Your task to perform on an android device: Show me popular games on the Play Store Image 0: 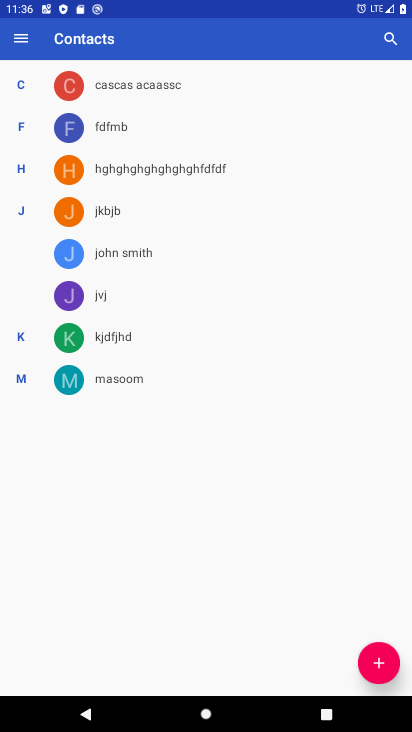
Step 0: press home button
Your task to perform on an android device: Show me popular games on the Play Store Image 1: 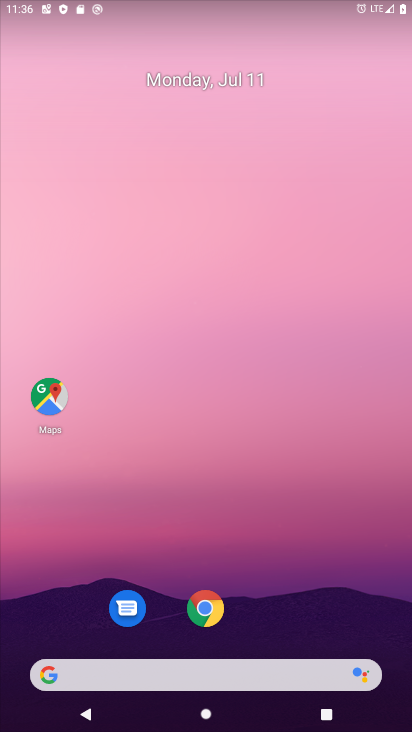
Step 1: drag from (27, 698) to (110, 0)
Your task to perform on an android device: Show me popular games on the Play Store Image 2: 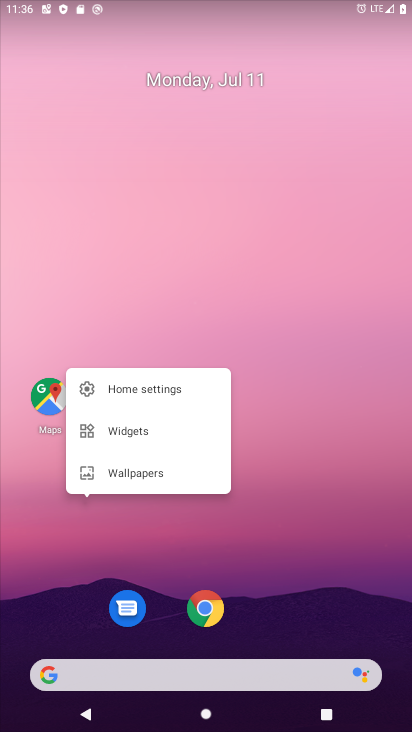
Step 2: drag from (35, 704) to (152, 165)
Your task to perform on an android device: Show me popular games on the Play Store Image 3: 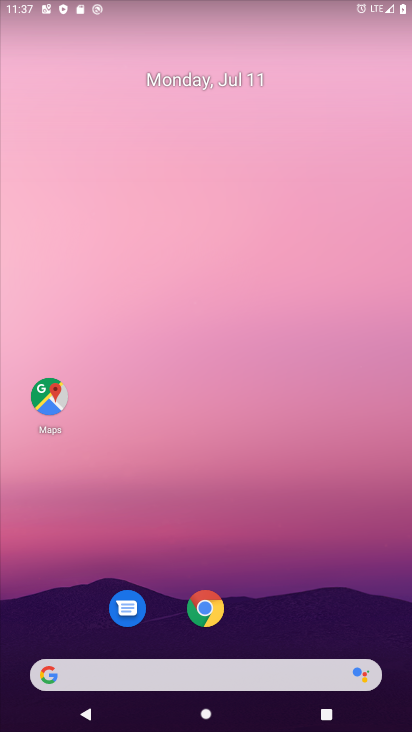
Step 3: drag from (45, 713) to (144, 140)
Your task to perform on an android device: Show me popular games on the Play Store Image 4: 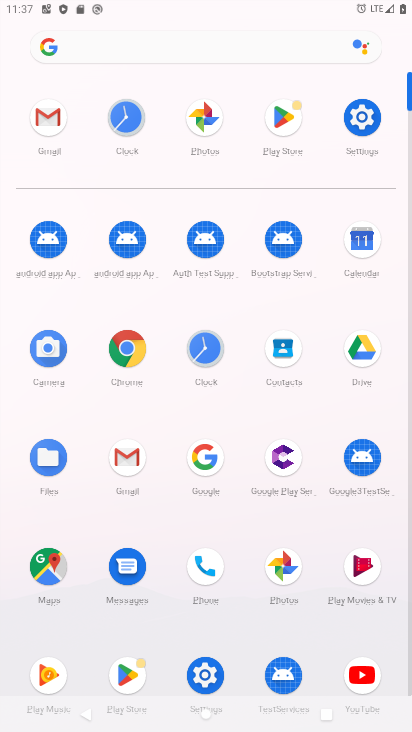
Step 4: click (120, 674)
Your task to perform on an android device: Show me popular games on the Play Store Image 5: 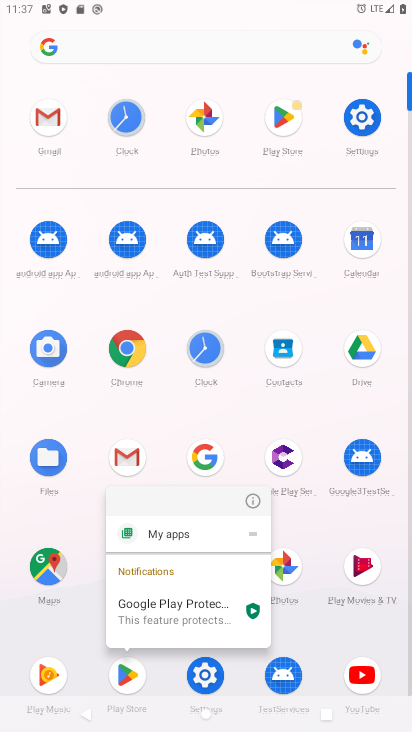
Step 5: click (124, 675)
Your task to perform on an android device: Show me popular games on the Play Store Image 6: 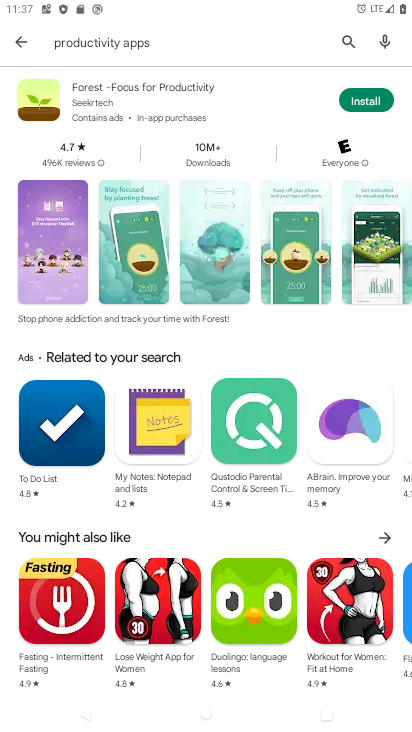
Step 6: click (21, 48)
Your task to perform on an android device: Show me popular games on the Play Store Image 7: 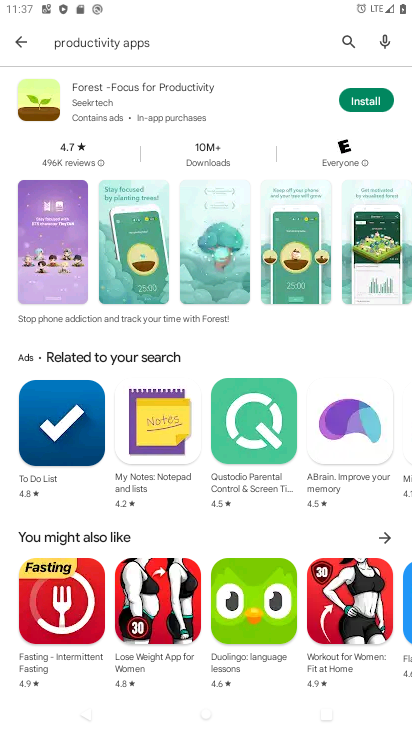
Step 7: click (23, 43)
Your task to perform on an android device: Show me popular games on the Play Store Image 8: 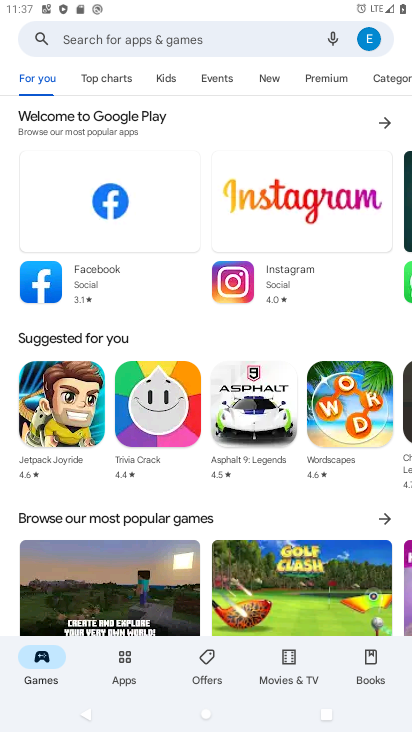
Step 8: click (146, 30)
Your task to perform on an android device: Show me popular games on the Play Store Image 9: 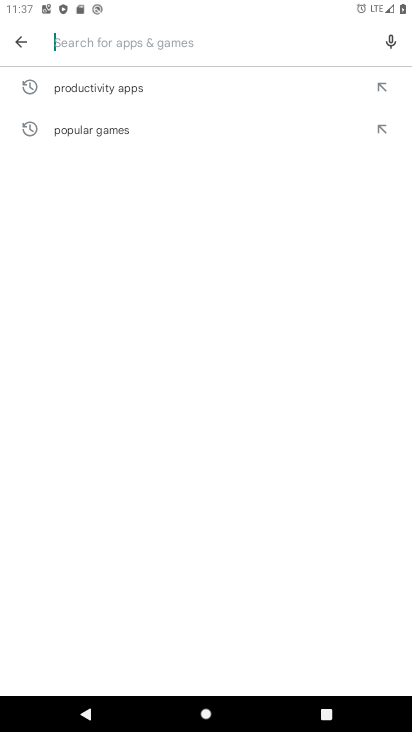
Step 9: type " popular games "
Your task to perform on an android device: Show me popular games on the Play Store Image 10: 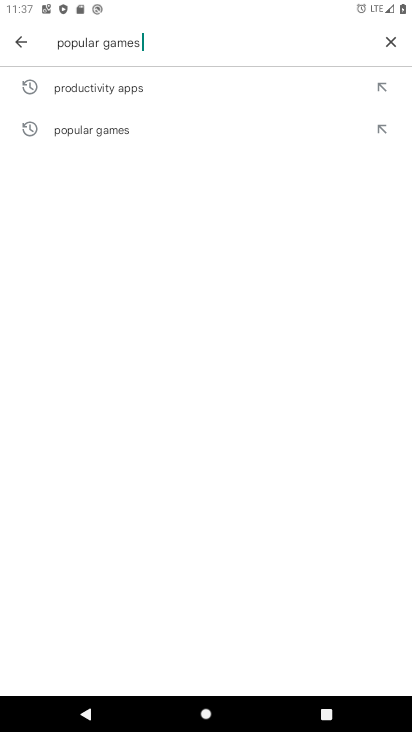
Step 10: type ""
Your task to perform on an android device: Show me popular games on the Play Store Image 11: 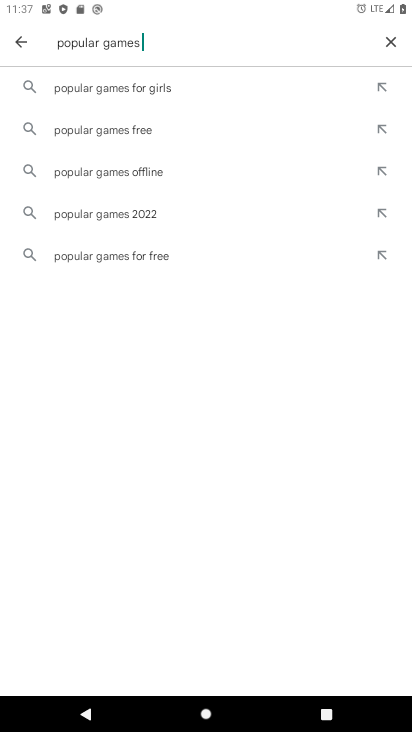
Step 11: type ""
Your task to perform on an android device: Show me popular games on the Play Store Image 12: 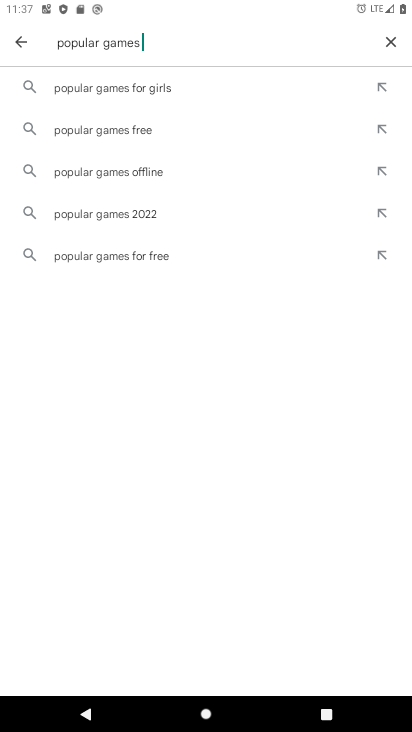
Step 12: task complete